Your task to perform on an android device: What's on my calendar today? Image 0: 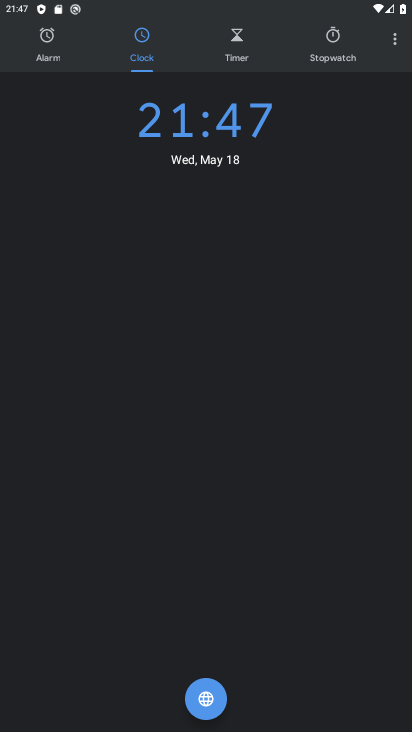
Step 0: press home button
Your task to perform on an android device: What's on my calendar today? Image 1: 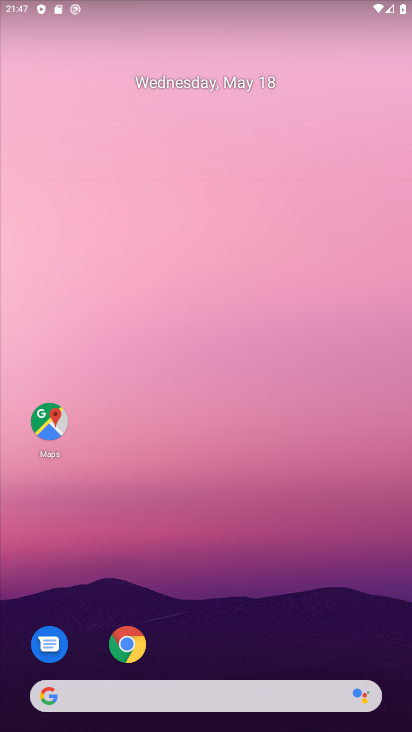
Step 1: drag from (238, 494) to (221, 151)
Your task to perform on an android device: What's on my calendar today? Image 2: 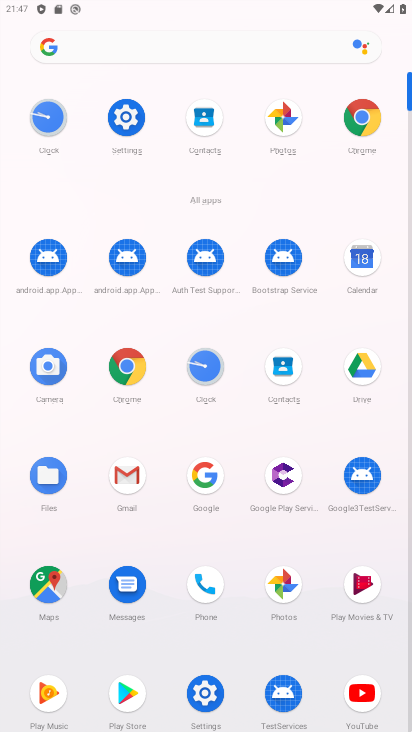
Step 2: click (210, 125)
Your task to perform on an android device: What's on my calendar today? Image 3: 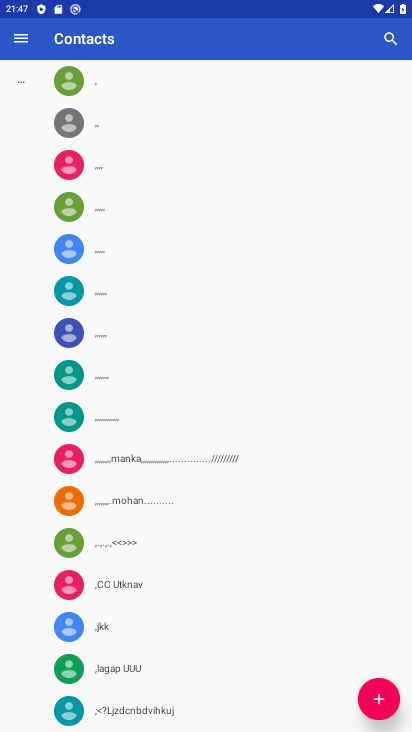
Step 3: press home button
Your task to perform on an android device: What's on my calendar today? Image 4: 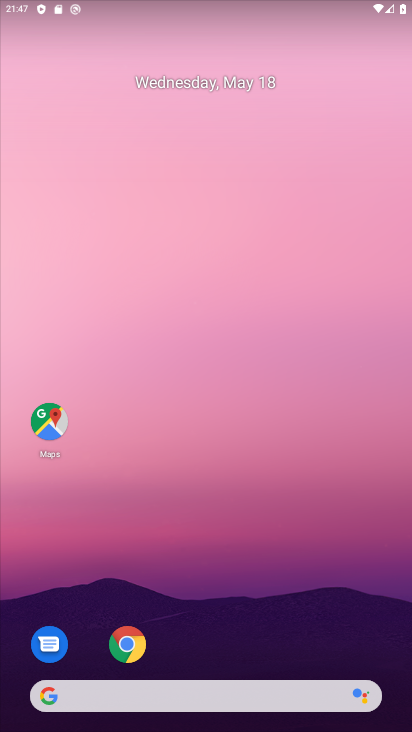
Step 4: drag from (271, 595) to (244, 5)
Your task to perform on an android device: What's on my calendar today? Image 5: 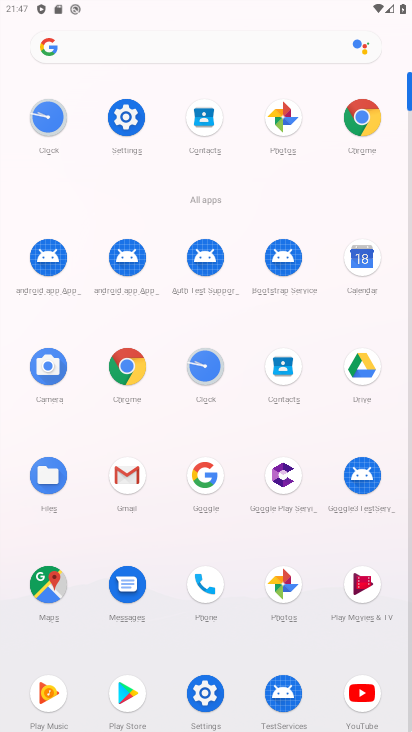
Step 5: click (370, 268)
Your task to perform on an android device: What's on my calendar today? Image 6: 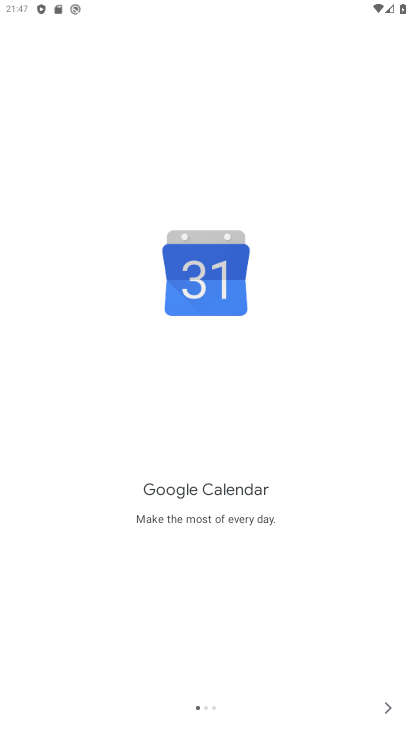
Step 6: click (394, 723)
Your task to perform on an android device: What's on my calendar today? Image 7: 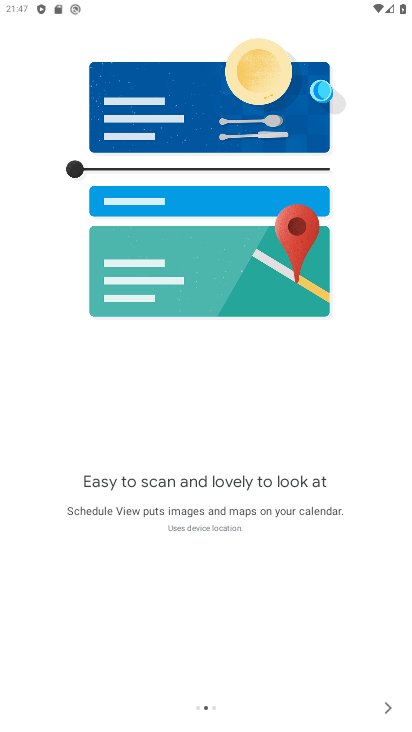
Step 7: click (394, 718)
Your task to perform on an android device: What's on my calendar today? Image 8: 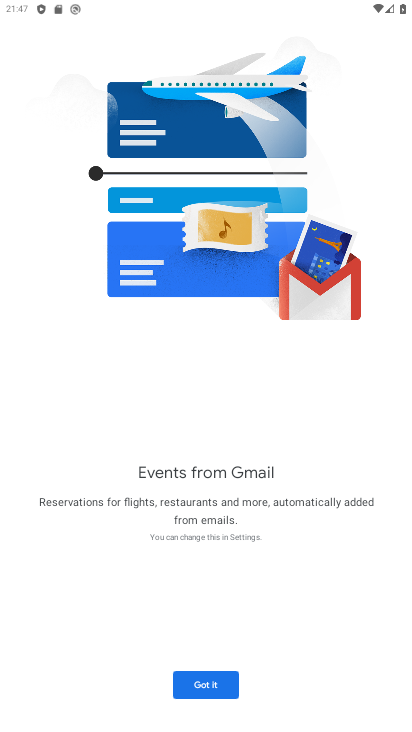
Step 8: click (199, 684)
Your task to perform on an android device: What's on my calendar today? Image 9: 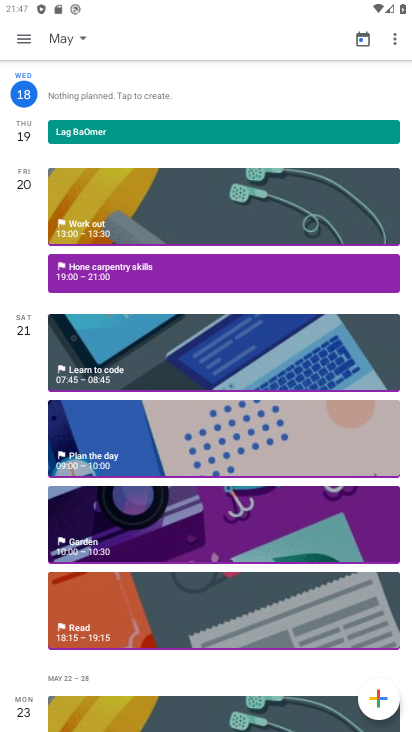
Step 9: click (28, 33)
Your task to perform on an android device: What's on my calendar today? Image 10: 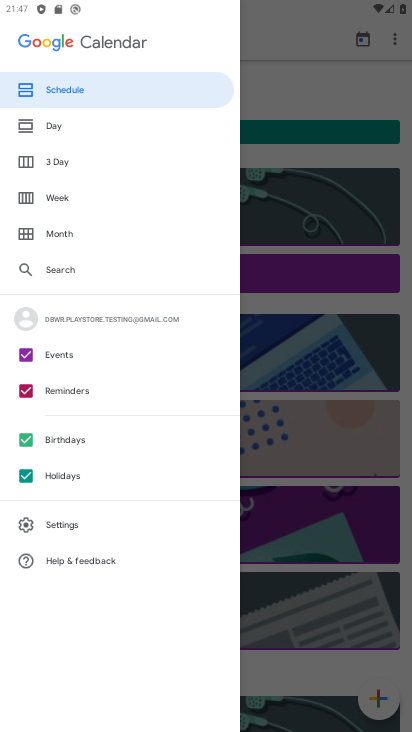
Step 10: click (42, 144)
Your task to perform on an android device: What's on my calendar today? Image 11: 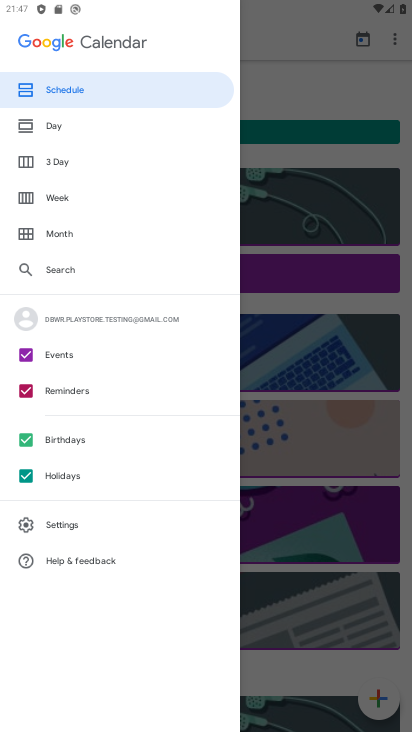
Step 11: click (54, 121)
Your task to perform on an android device: What's on my calendar today? Image 12: 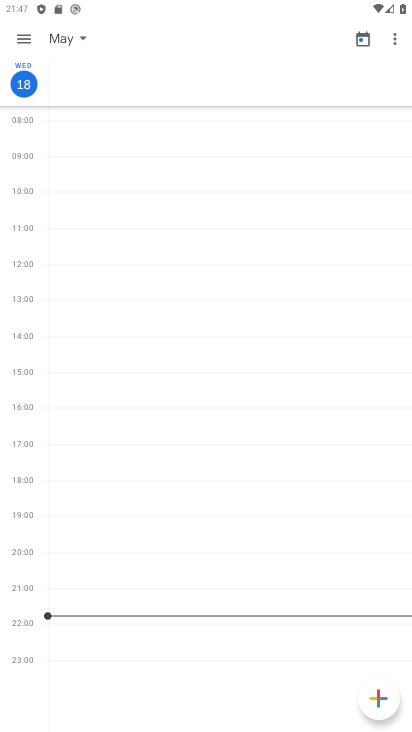
Step 12: task complete